Your task to perform on an android device: Open battery settings Image 0: 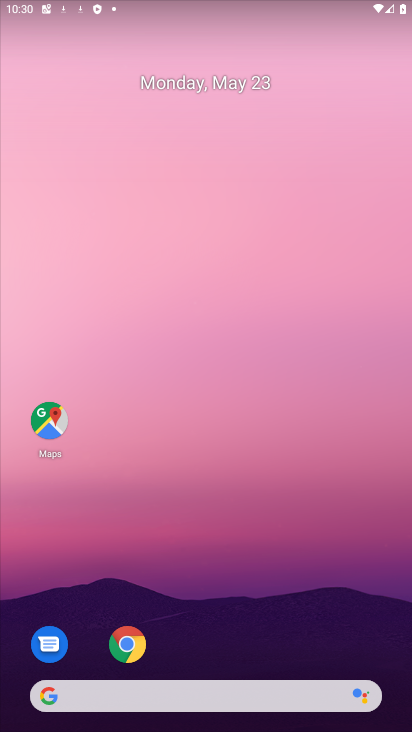
Step 0: drag from (303, 712) to (310, 16)
Your task to perform on an android device: Open battery settings Image 1: 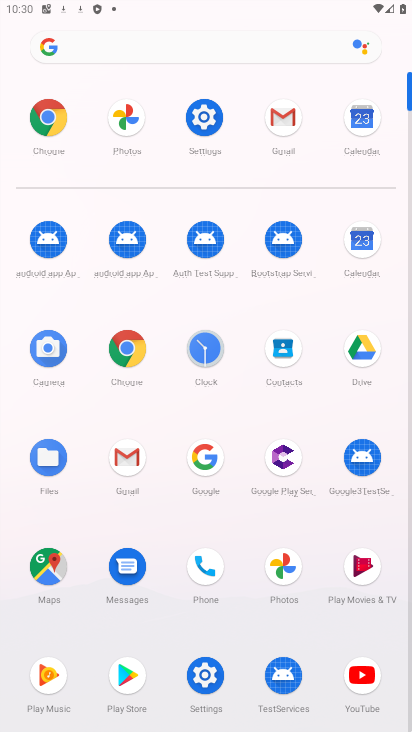
Step 1: click (211, 131)
Your task to perform on an android device: Open battery settings Image 2: 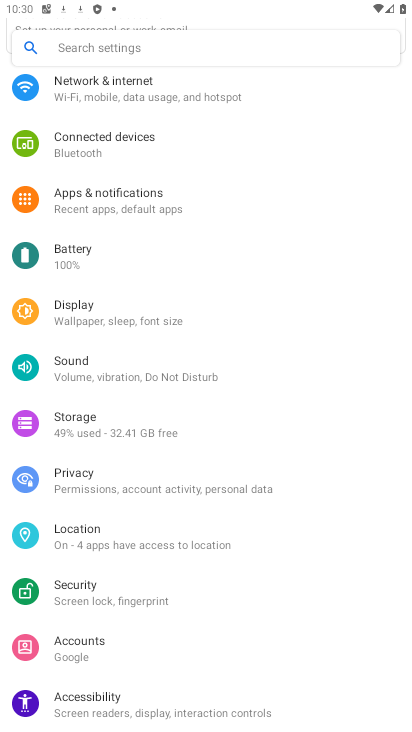
Step 2: click (123, 265)
Your task to perform on an android device: Open battery settings Image 3: 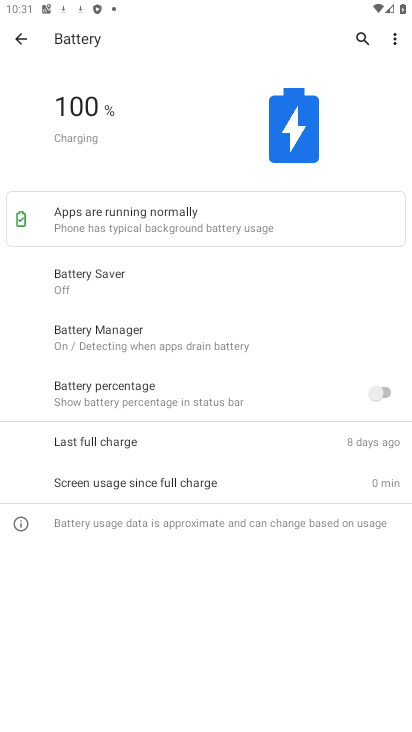
Step 3: task complete